Your task to perform on an android device: open sync settings in chrome Image 0: 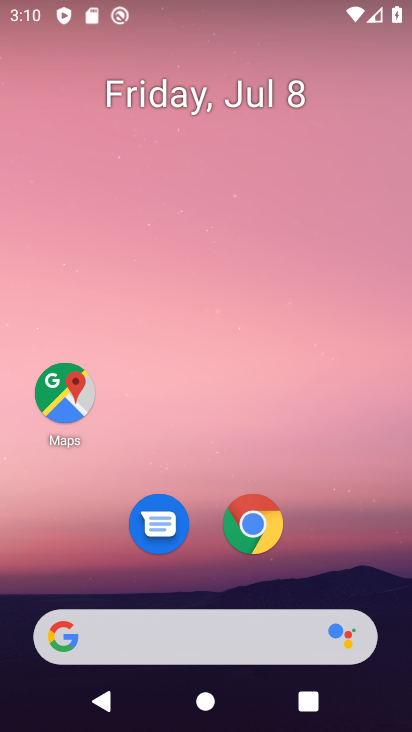
Step 0: click (266, 520)
Your task to perform on an android device: open sync settings in chrome Image 1: 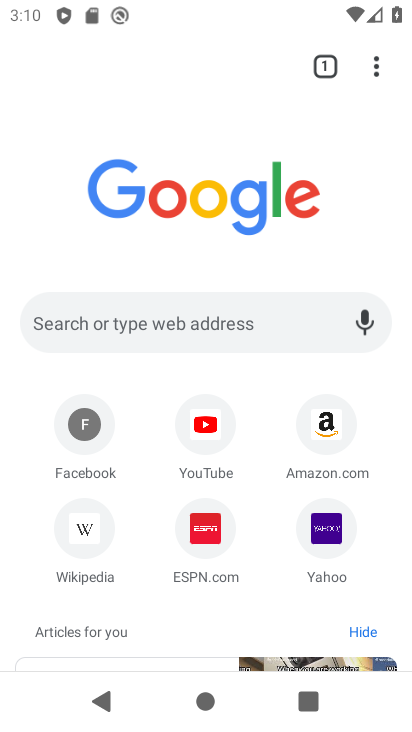
Step 1: click (377, 74)
Your task to perform on an android device: open sync settings in chrome Image 2: 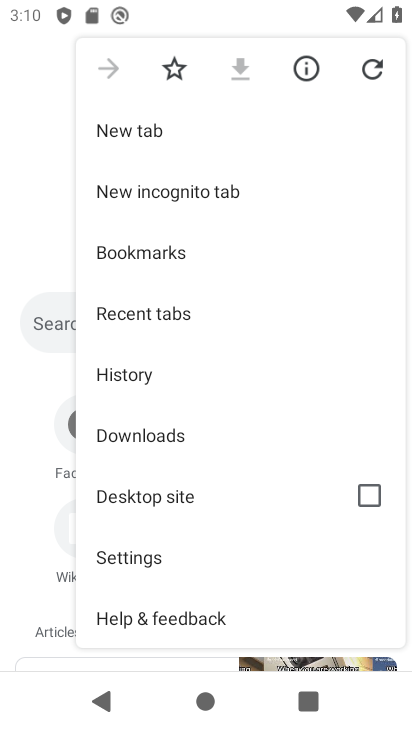
Step 2: click (153, 560)
Your task to perform on an android device: open sync settings in chrome Image 3: 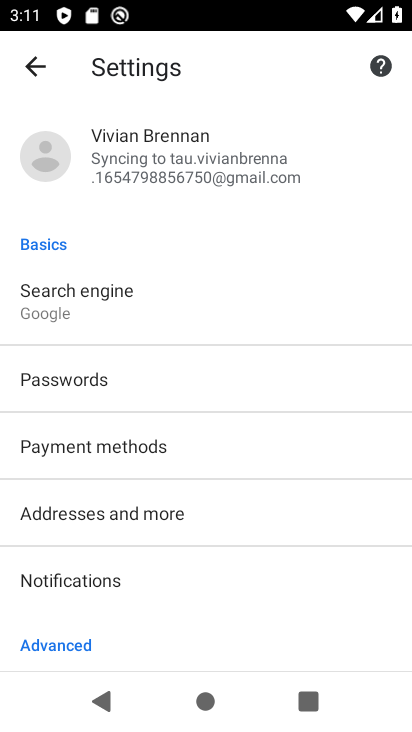
Step 3: click (209, 163)
Your task to perform on an android device: open sync settings in chrome Image 4: 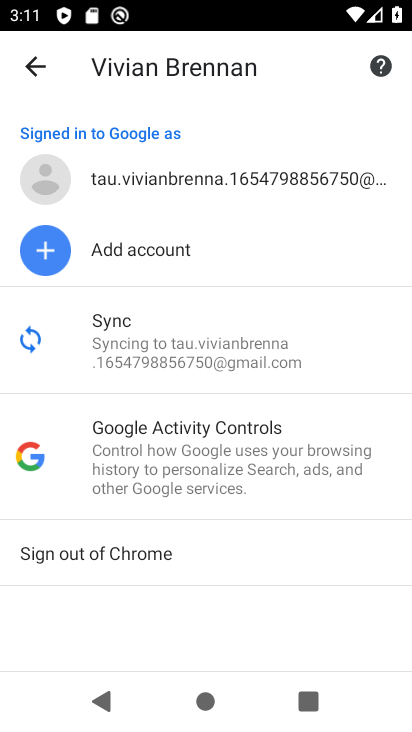
Step 4: click (198, 339)
Your task to perform on an android device: open sync settings in chrome Image 5: 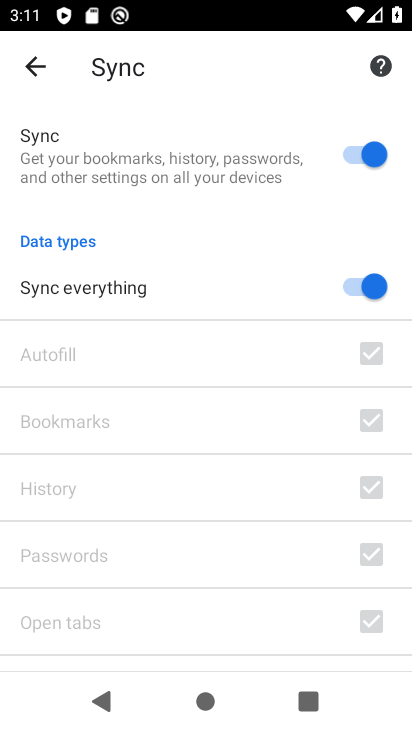
Step 5: task complete